Your task to perform on an android device: move a message to another label in the gmail app Image 0: 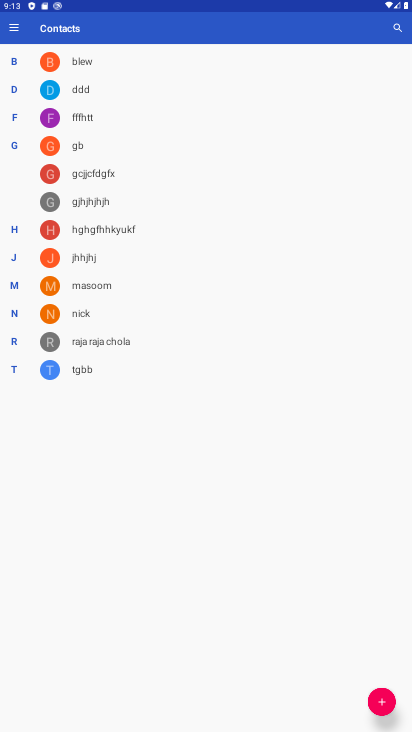
Step 0: press home button
Your task to perform on an android device: move a message to another label in the gmail app Image 1: 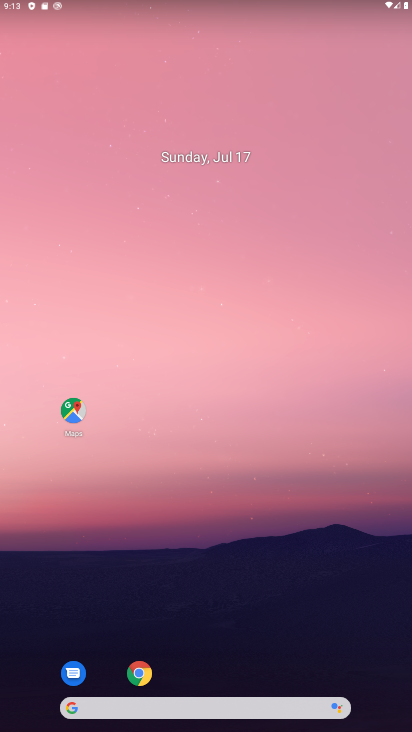
Step 1: drag from (262, 655) to (274, 14)
Your task to perform on an android device: move a message to another label in the gmail app Image 2: 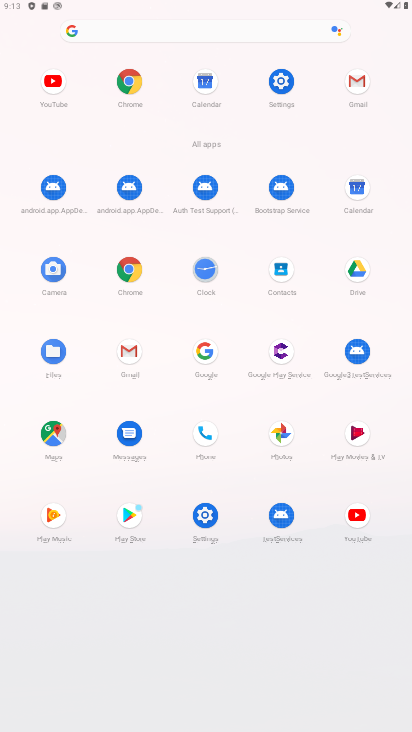
Step 2: click (346, 83)
Your task to perform on an android device: move a message to another label in the gmail app Image 3: 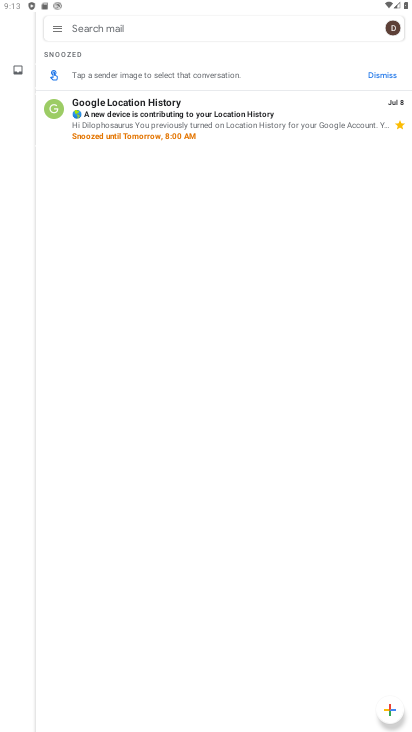
Step 3: click (58, 25)
Your task to perform on an android device: move a message to another label in the gmail app Image 4: 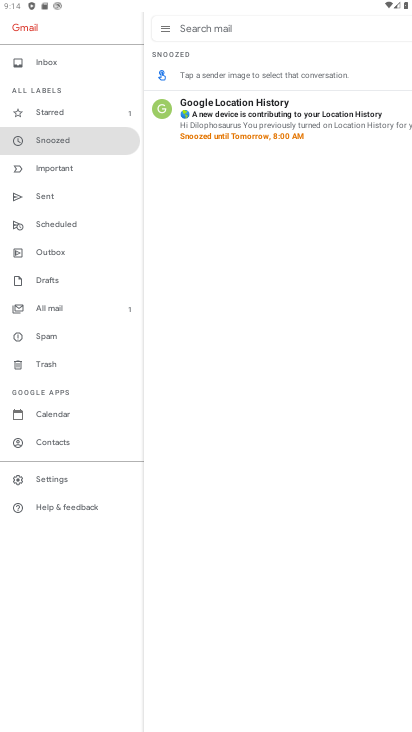
Step 4: click (201, 114)
Your task to perform on an android device: move a message to another label in the gmail app Image 5: 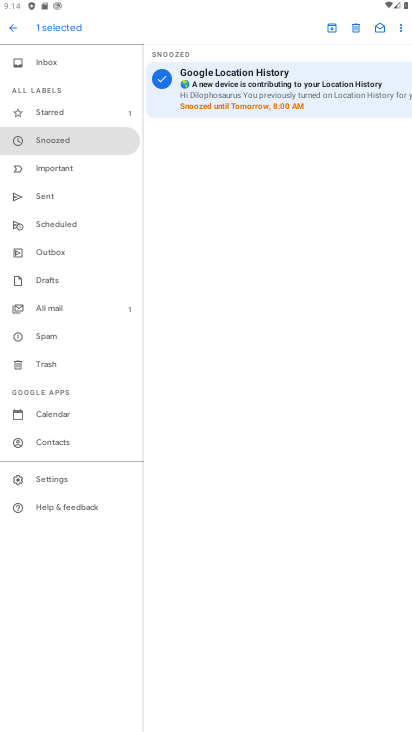
Step 5: click (400, 30)
Your task to perform on an android device: move a message to another label in the gmail app Image 6: 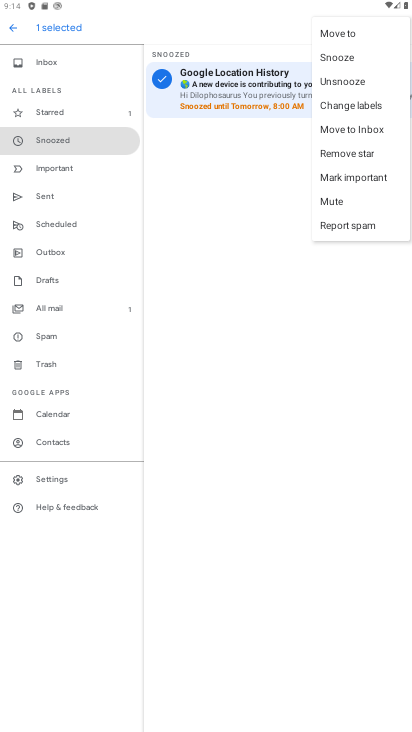
Step 6: click (336, 31)
Your task to perform on an android device: move a message to another label in the gmail app Image 7: 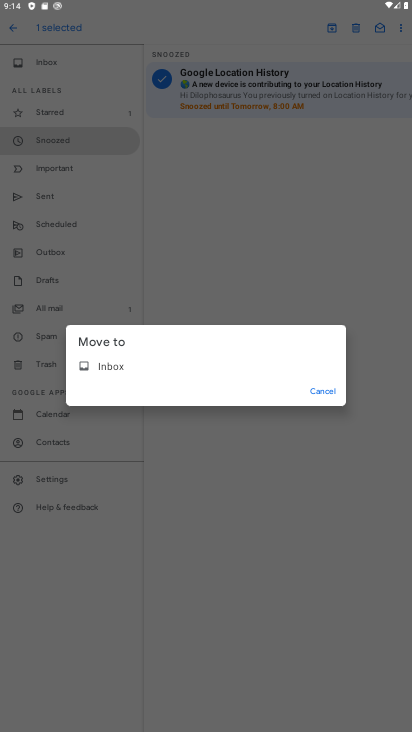
Step 7: click (109, 362)
Your task to perform on an android device: move a message to another label in the gmail app Image 8: 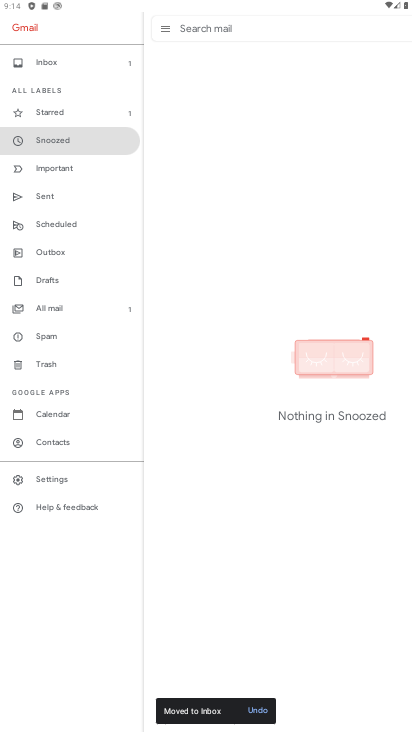
Step 8: task complete